Your task to perform on an android device: See recent photos Image 0: 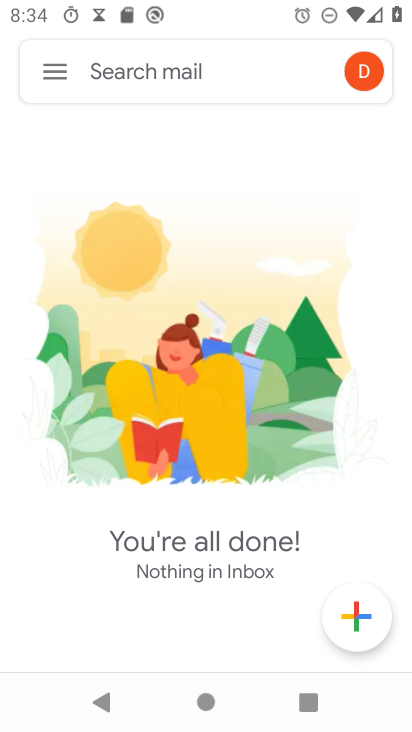
Step 0: press home button
Your task to perform on an android device: See recent photos Image 1: 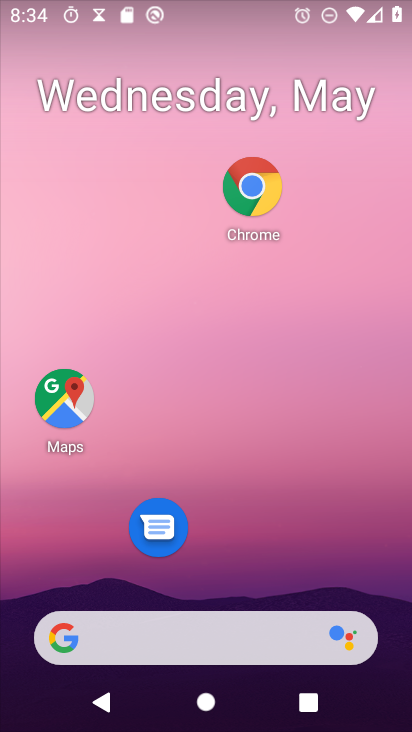
Step 1: drag from (241, 568) to (288, 37)
Your task to perform on an android device: See recent photos Image 2: 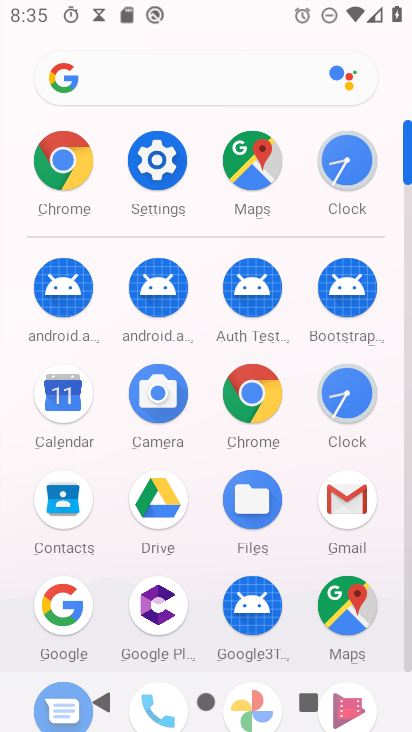
Step 2: drag from (302, 315) to (301, 32)
Your task to perform on an android device: See recent photos Image 3: 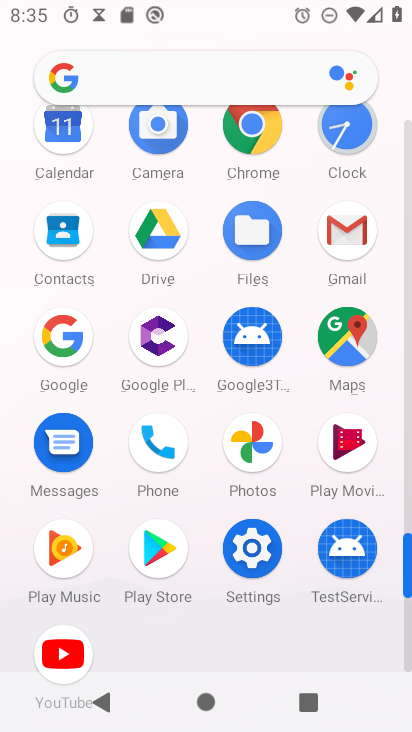
Step 3: click (257, 454)
Your task to perform on an android device: See recent photos Image 4: 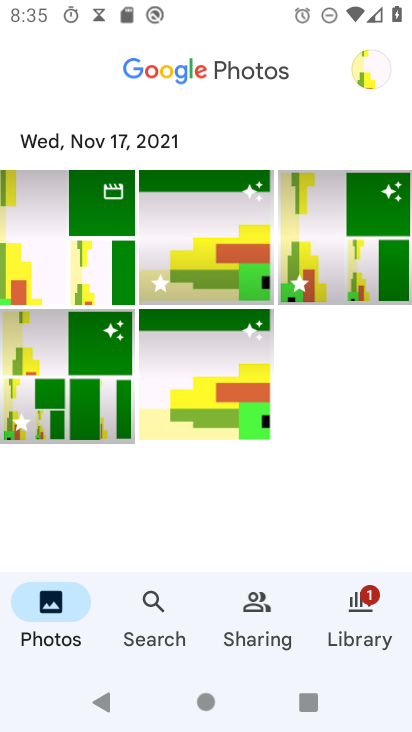
Step 4: click (36, 614)
Your task to perform on an android device: See recent photos Image 5: 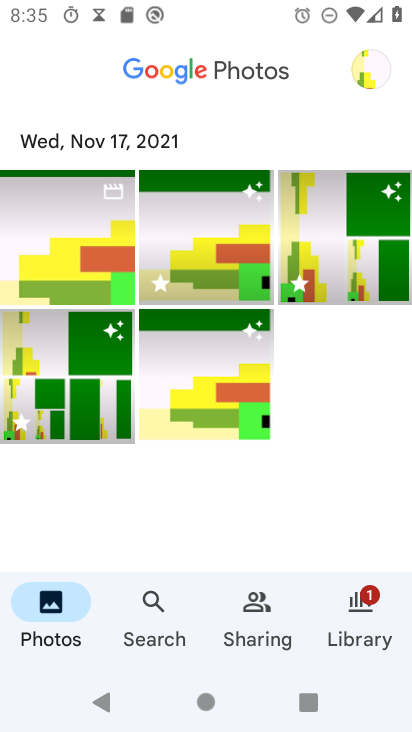
Step 5: task complete